Your task to perform on an android device: check the backup settings in the google photos Image 0: 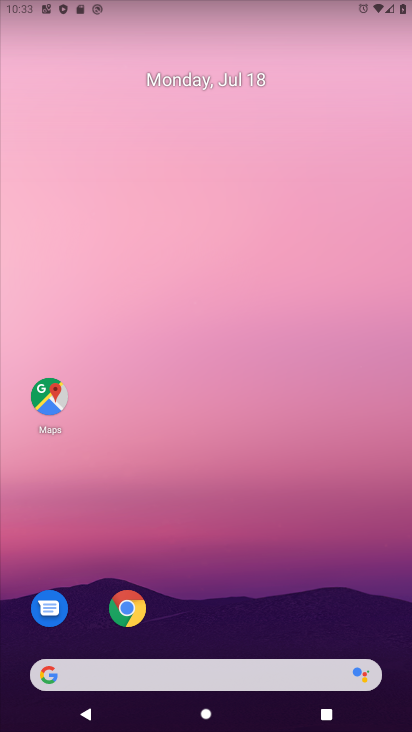
Step 0: drag from (28, 701) to (211, 232)
Your task to perform on an android device: check the backup settings in the google photos Image 1: 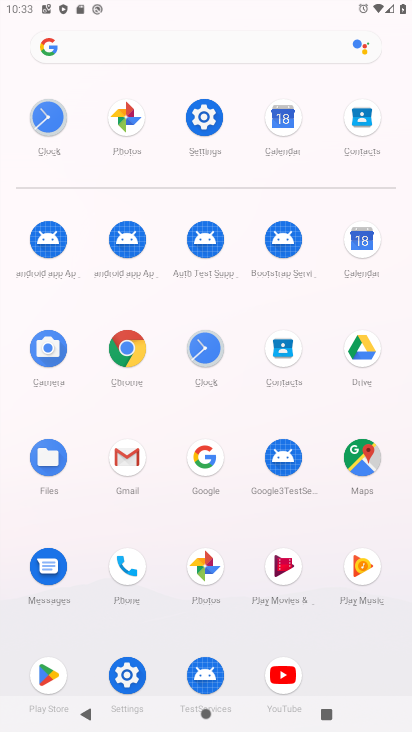
Step 1: click (218, 577)
Your task to perform on an android device: check the backup settings in the google photos Image 2: 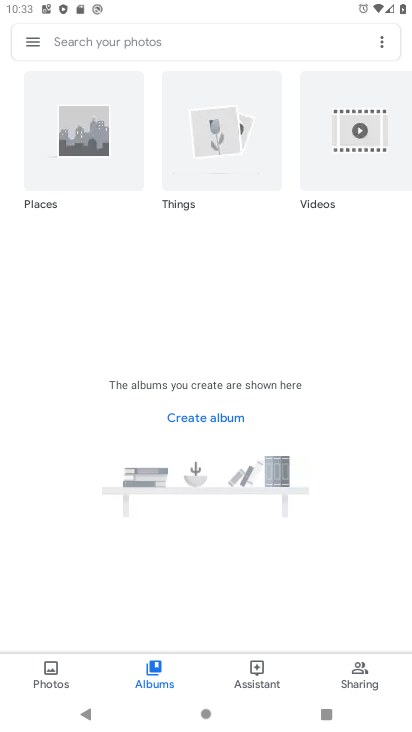
Step 2: click (27, 32)
Your task to perform on an android device: check the backup settings in the google photos Image 3: 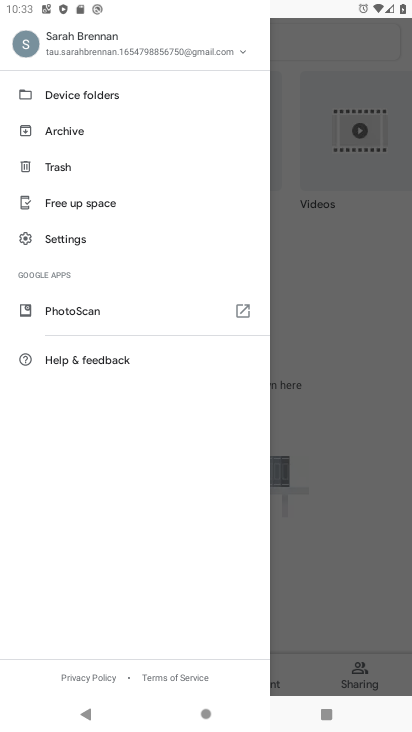
Step 3: click (68, 241)
Your task to perform on an android device: check the backup settings in the google photos Image 4: 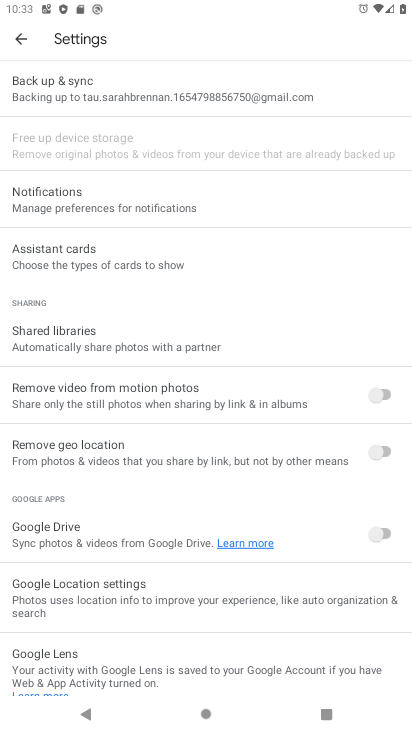
Step 4: click (45, 89)
Your task to perform on an android device: check the backup settings in the google photos Image 5: 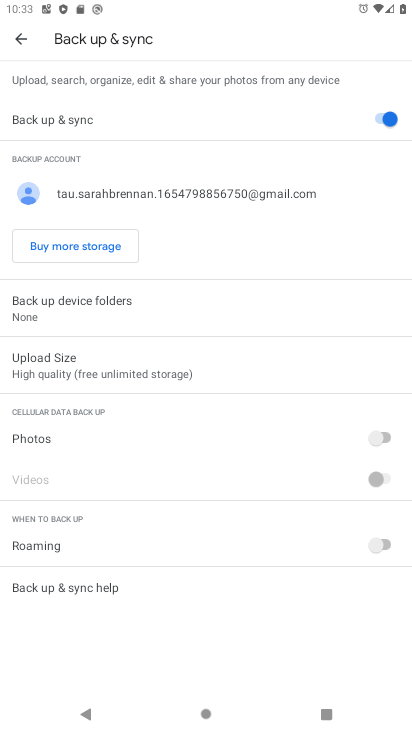
Step 5: task complete